Your task to perform on an android device: turn on bluetooth scan Image 0: 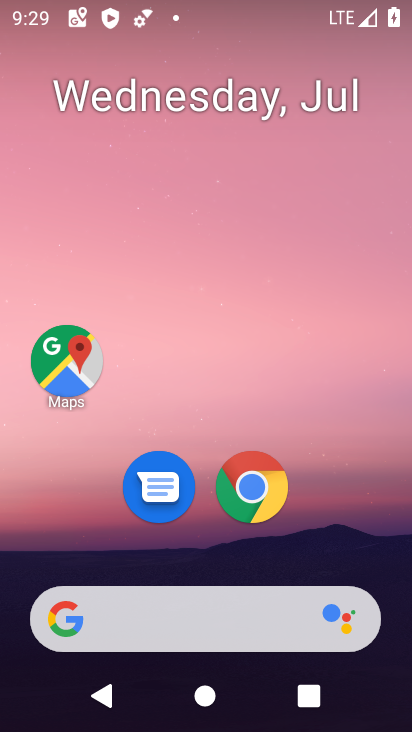
Step 0: drag from (251, 577) to (0, 245)
Your task to perform on an android device: turn on bluetooth scan Image 1: 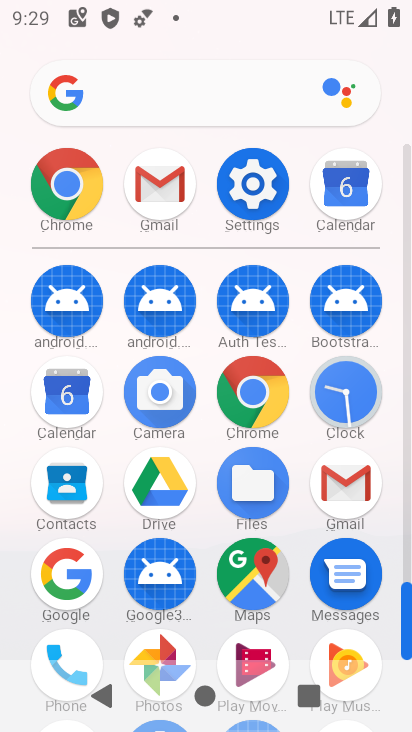
Step 1: click (259, 179)
Your task to perform on an android device: turn on bluetooth scan Image 2: 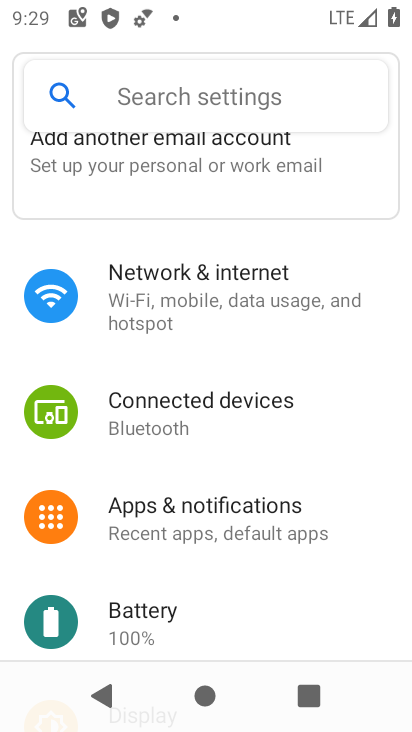
Step 2: drag from (228, 571) to (222, 281)
Your task to perform on an android device: turn on bluetooth scan Image 3: 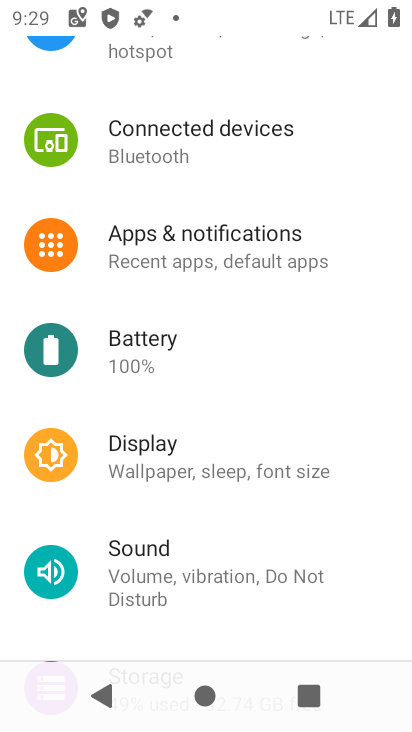
Step 3: drag from (170, 515) to (195, 273)
Your task to perform on an android device: turn on bluetooth scan Image 4: 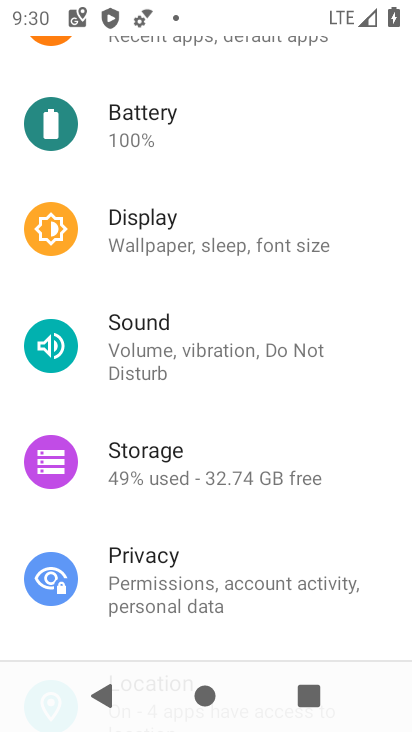
Step 4: drag from (205, 479) to (212, 243)
Your task to perform on an android device: turn on bluetooth scan Image 5: 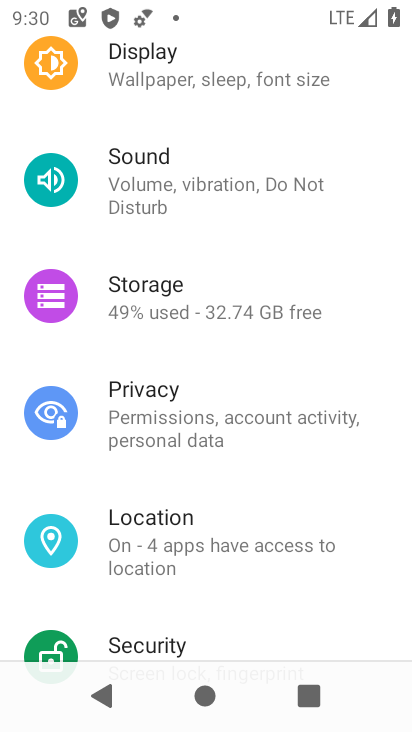
Step 5: click (156, 526)
Your task to perform on an android device: turn on bluetooth scan Image 6: 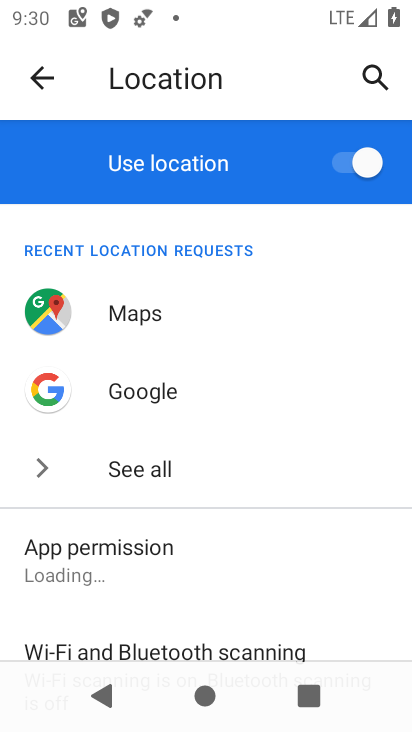
Step 6: click (162, 643)
Your task to perform on an android device: turn on bluetooth scan Image 7: 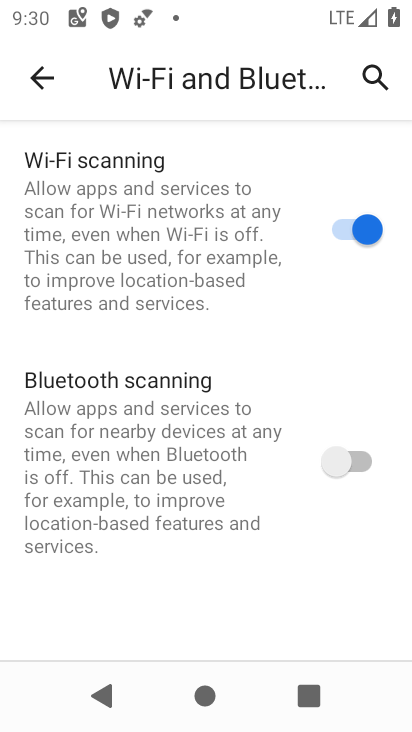
Step 7: click (349, 473)
Your task to perform on an android device: turn on bluetooth scan Image 8: 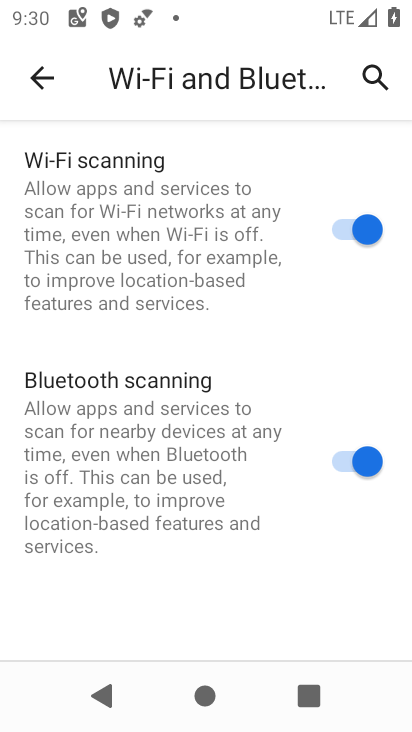
Step 8: task complete